Your task to perform on an android device: Open settings Image 0: 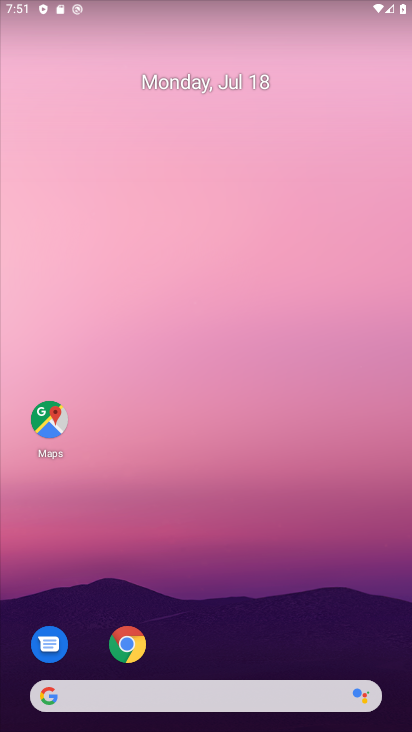
Step 0: drag from (208, 609) to (208, 88)
Your task to perform on an android device: Open settings Image 1: 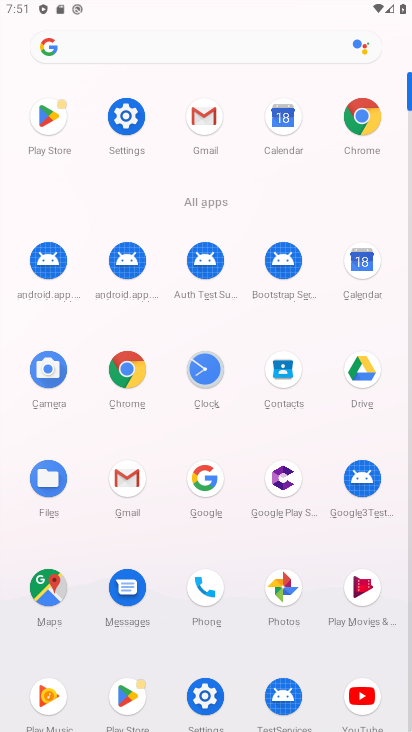
Step 1: click (123, 110)
Your task to perform on an android device: Open settings Image 2: 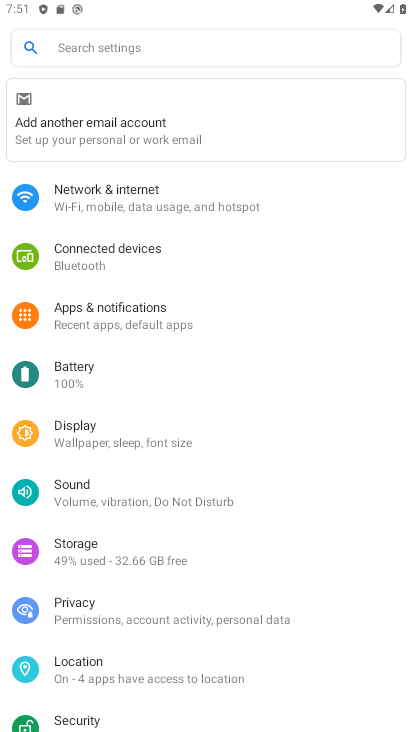
Step 2: task complete